Your task to perform on an android device: turn off notifications in google photos Image 0: 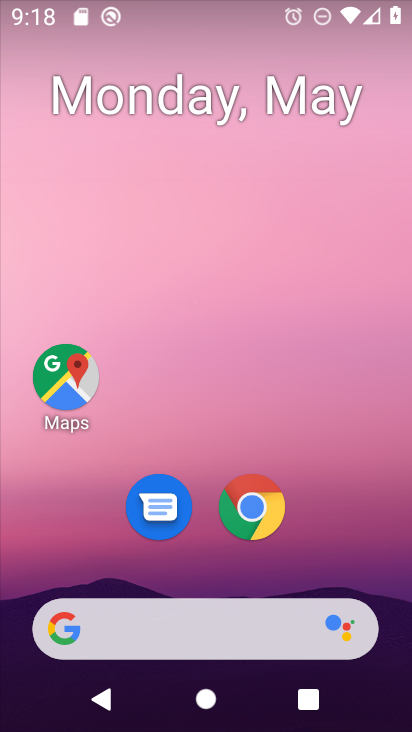
Step 0: drag from (208, 15) to (241, 2)
Your task to perform on an android device: turn off notifications in google photos Image 1: 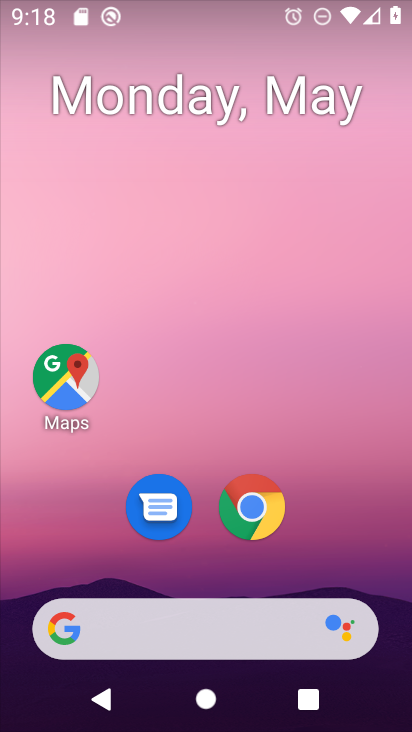
Step 1: drag from (213, 580) to (219, 53)
Your task to perform on an android device: turn off notifications in google photos Image 2: 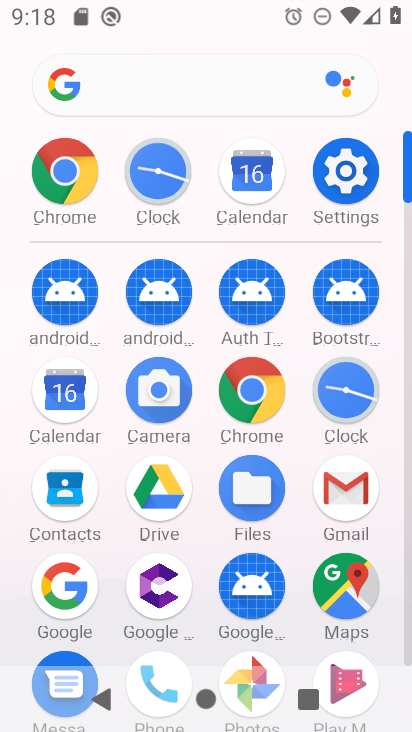
Step 2: drag from (231, 598) to (271, 171)
Your task to perform on an android device: turn off notifications in google photos Image 3: 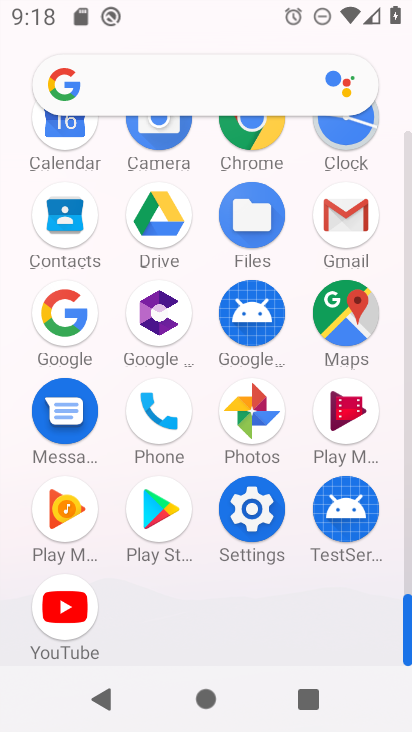
Step 3: click (253, 412)
Your task to perform on an android device: turn off notifications in google photos Image 4: 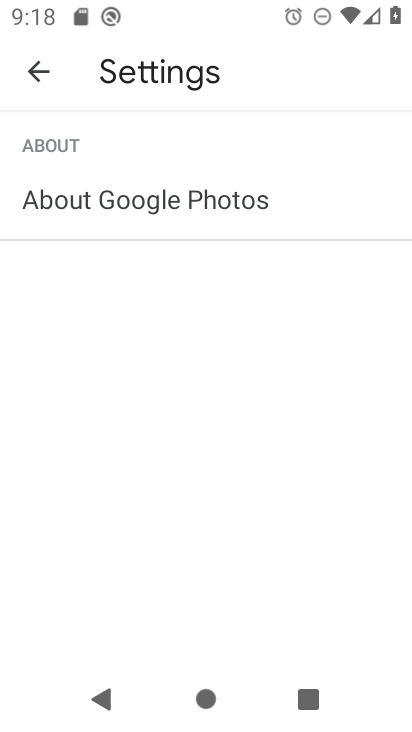
Step 4: click (37, 77)
Your task to perform on an android device: turn off notifications in google photos Image 5: 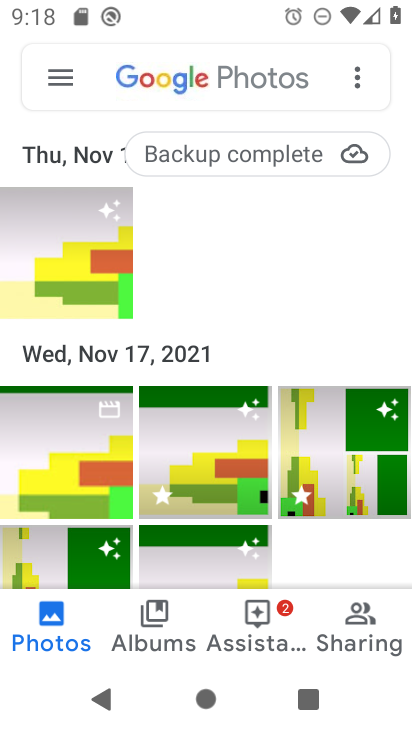
Step 5: click (44, 75)
Your task to perform on an android device: turn off notifications in google photos Image 6: 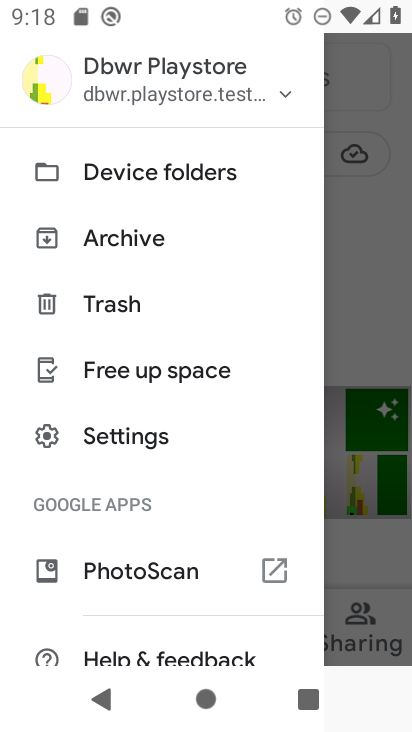
Step 6: click (138, 456)
Your task to perform on an android device: turn off notifications in google photos Image 7: 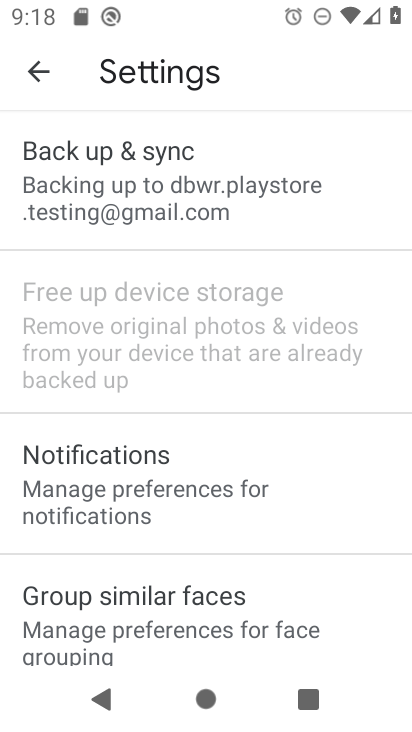
Step 7: click (203, 495)
Your task to perform on an android device: turn off notifications in google photos Image 8: 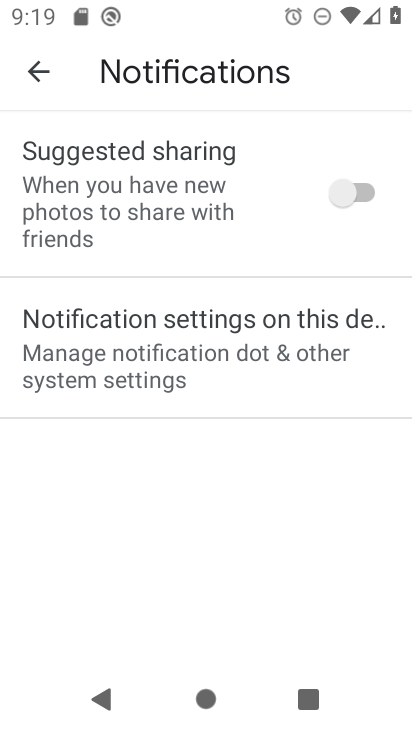
Step 8: click (92, 340)
Your task to perform on an android device: turn off notifications in google photos Image 9: 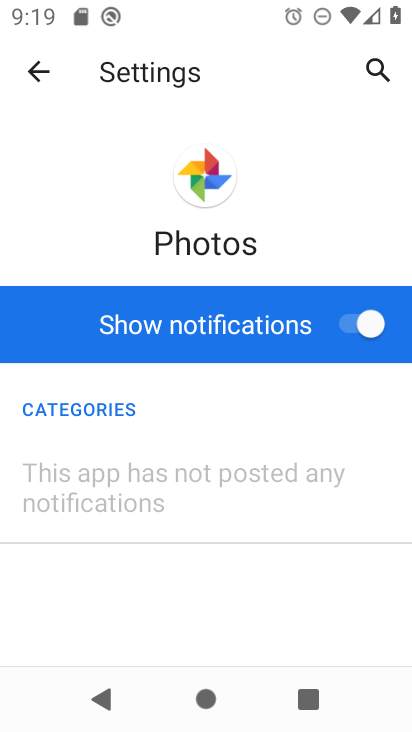
Step 9: click (322, 330)
Your task to perform on an android device: turn off notifications in google photos Image 10: 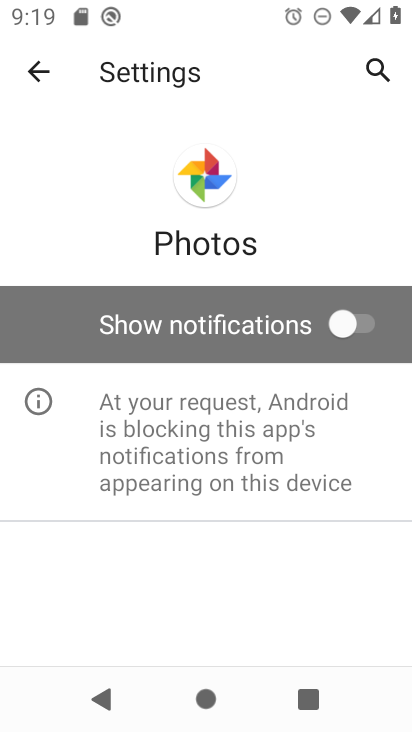
Step 10: task complete